Your task to perform on an android device: set default search engine in the chrome app Image 0: 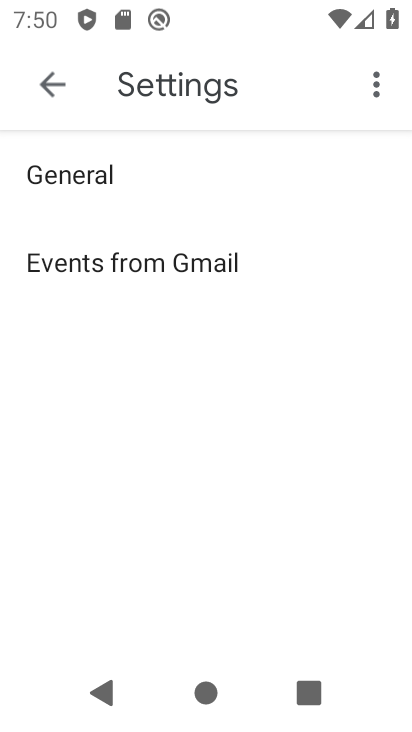
Step 0: press home button
Your task to perform on an android device: set default search engine in the chrome app Image 1: 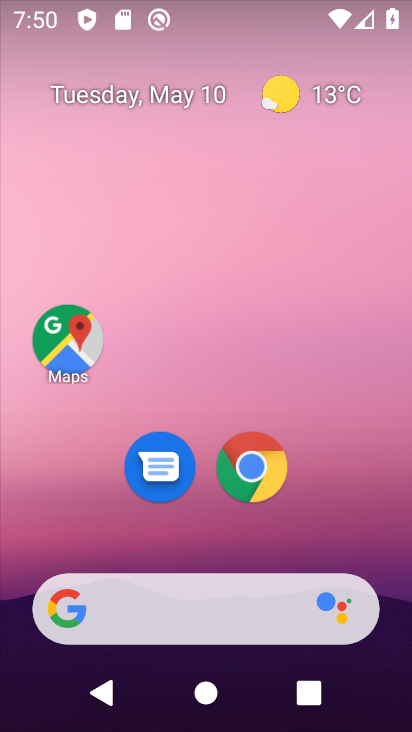
Step 1: click (256, 444)
Your task to perform on an android device: set default search engine in the chrome app Image 2: 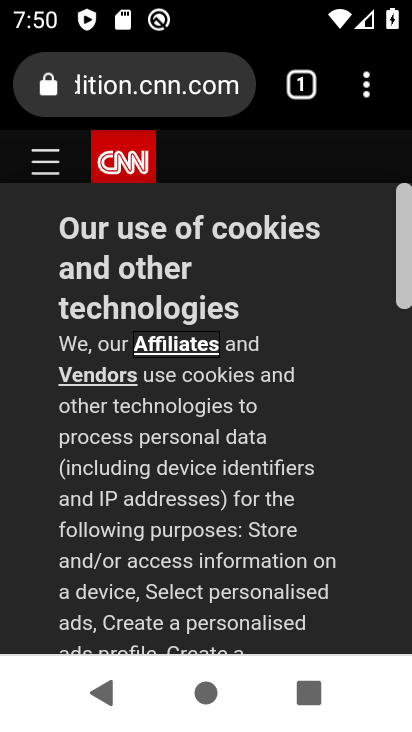
Step 2: click (357, 91)
Your task to perform on an android device: set default search engine in the chrome app Image 3: 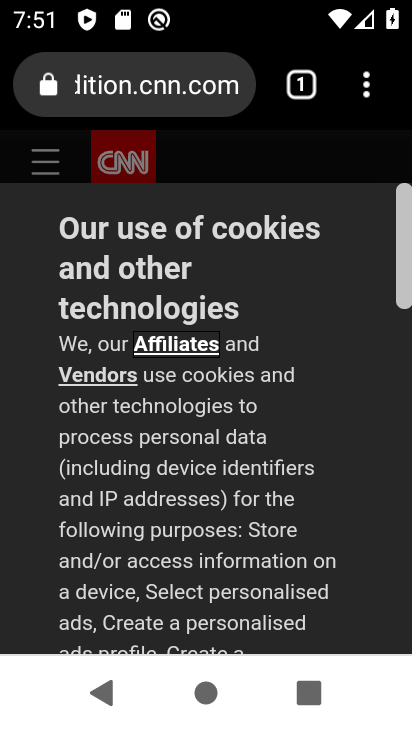
Step 3: click (367, 90)
Your task to perform on an android device: set default search engine in the chrome app Image 4: 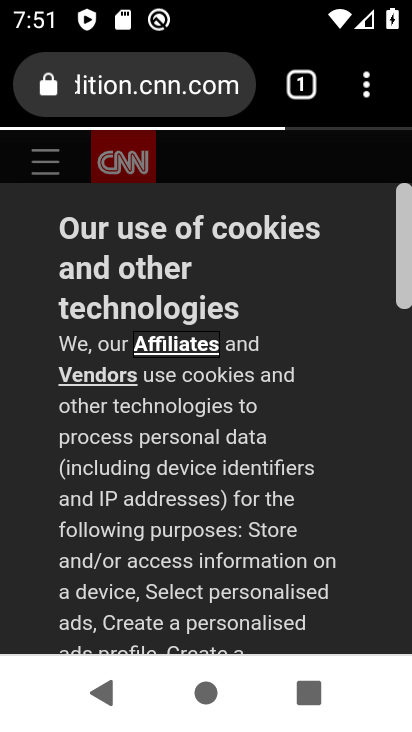
Step 4: click (387, 82)
Your task to perform on an android device: set default search engine in the chrome app Image 5: 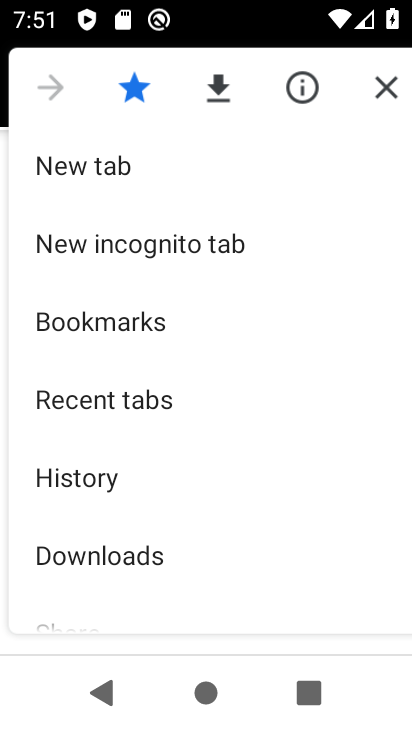
Step 5: drag from (189, 512) to (173, 154)
Your task to perform on an android device: set default search engine in the chrome app Image 6: 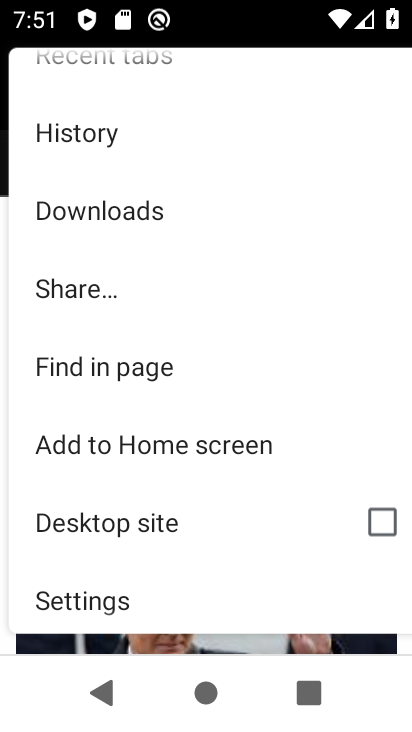
Step 6: click (200, 589)
Your task to perform on an android device: set default search engine in the chrome app Image 7: 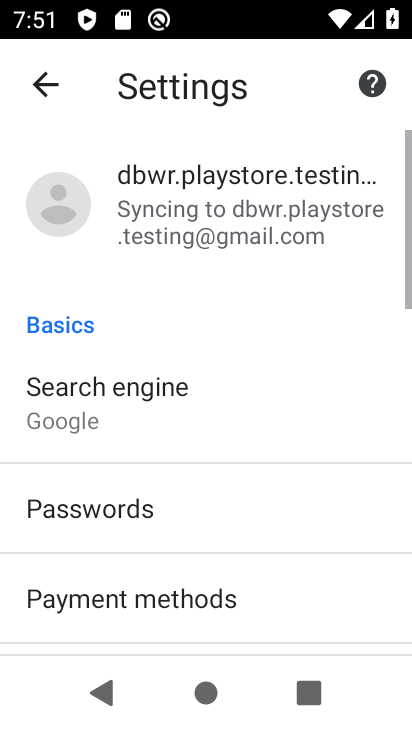
Step 7: drag from (200, 589) to (198, 440)
Your task to perform on an android device: set default search engine in the chrome app Image 8: 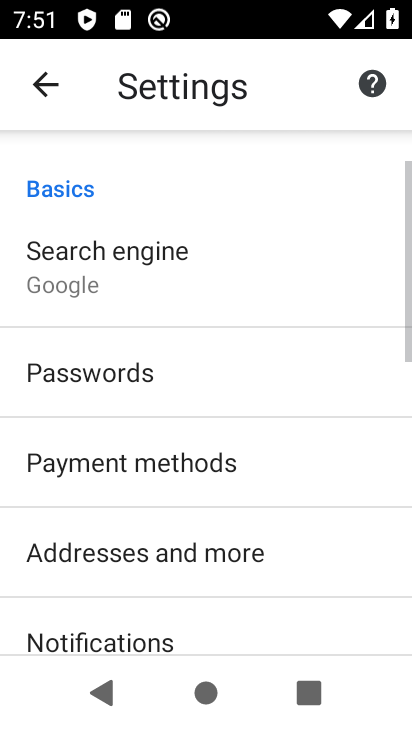
Step 8: click (199, 253)
Your task to perform on an android device: set default search engine in the chrome app Image 9: 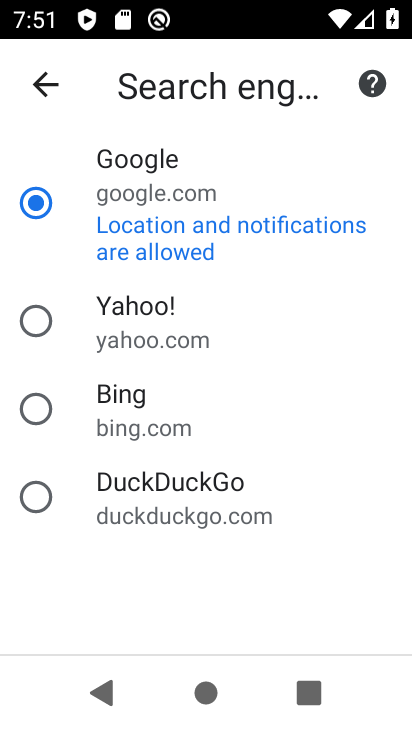
Step 9: task complete